Your task to perform on an android device: change the upload size in google photos Image 0: 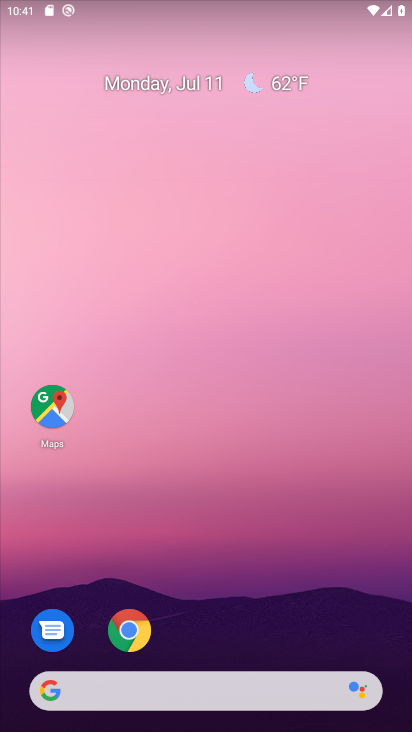
Step 0: drag from (292, 568) to (243, 6)
Your task to perform on an android device: change the upload size in google photos Image 1: 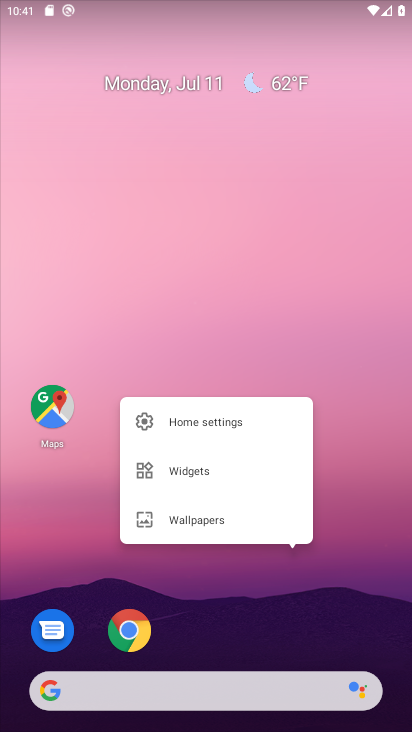
Step 1: click (383, 472)
Your task to perform on an android device: change the upload size in google photos Image 2: 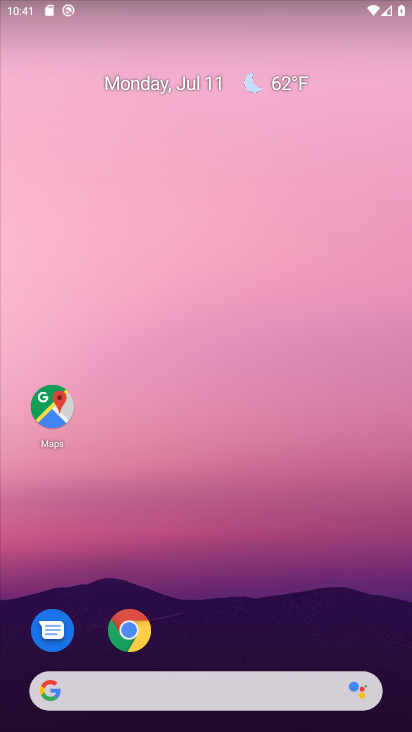
Step 2: drag from (277, 633) to (230, 19)
Your task to perform on an android device: change the upload size in google photos Image 3: 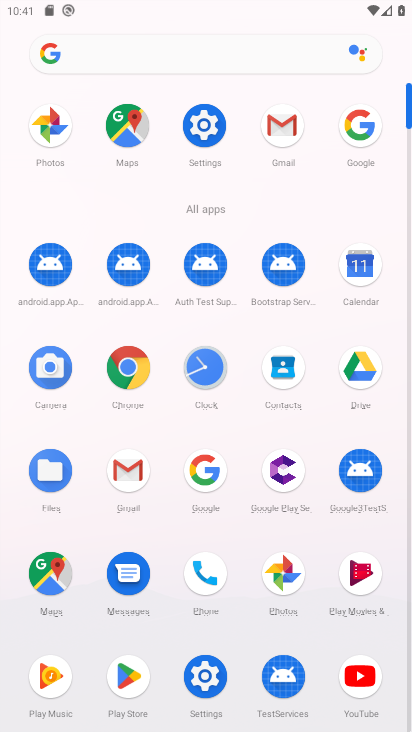
Step 3: click (46, 131)
Your task to perform on an android device: change the upload size in google photos Image 4: 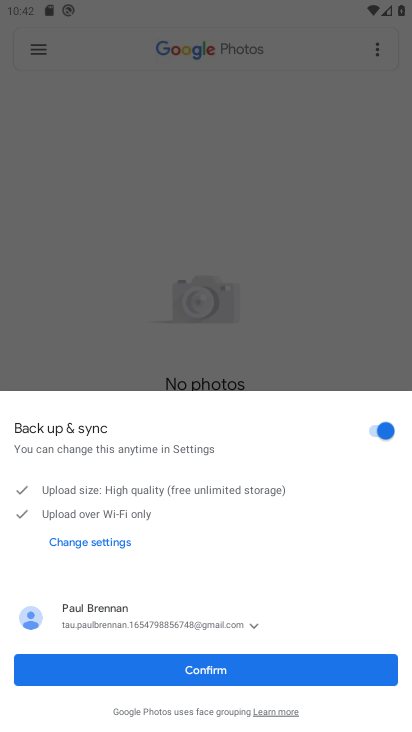
Step 4: click (182, 671)
Your task to perform on an android device: change the upload size in google photos Image 5: 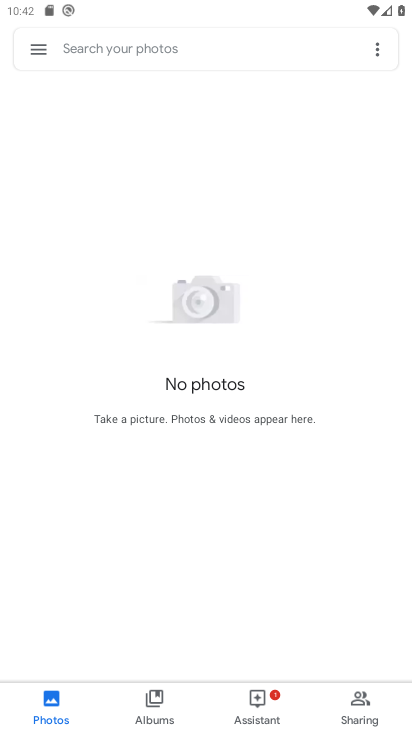
Step 5: click (36, 53)
Your task to perform on an android device: change the upload size in google photos Image 6: 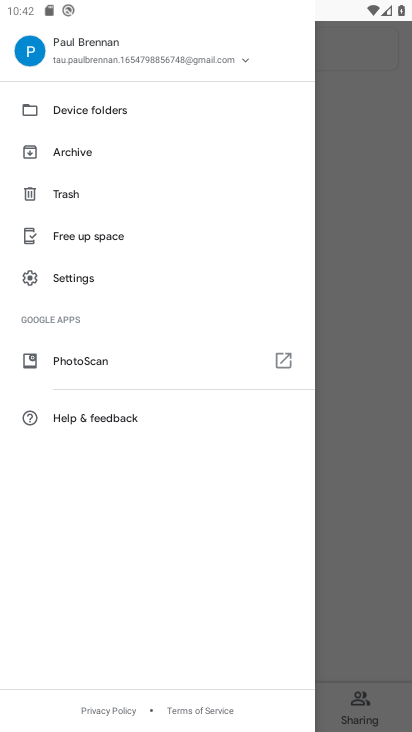
Step 6: click (77, 274)
Your task to perform on an android device: change the upload size in google photos Image 7: 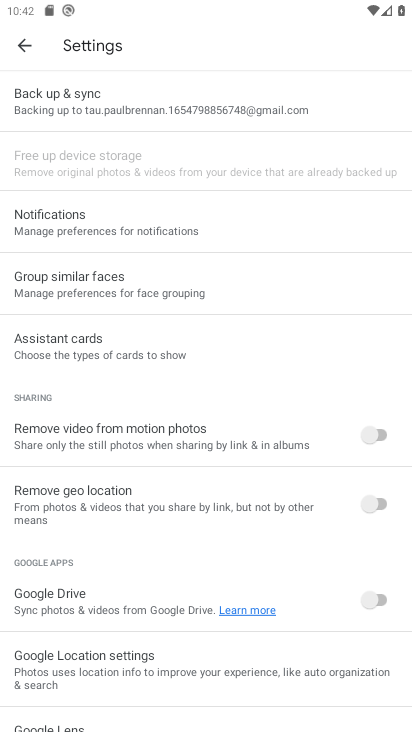
Step 7: click (100, 105)
Your task to perform on an android device: change the upload size in google photos Image 8: 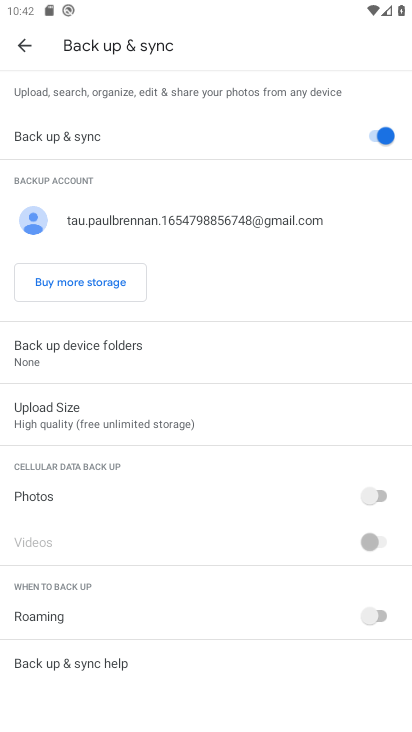
Step 8: click (107, 408)
Your task to perform on an android device: change the upload size in google photos Image 9: 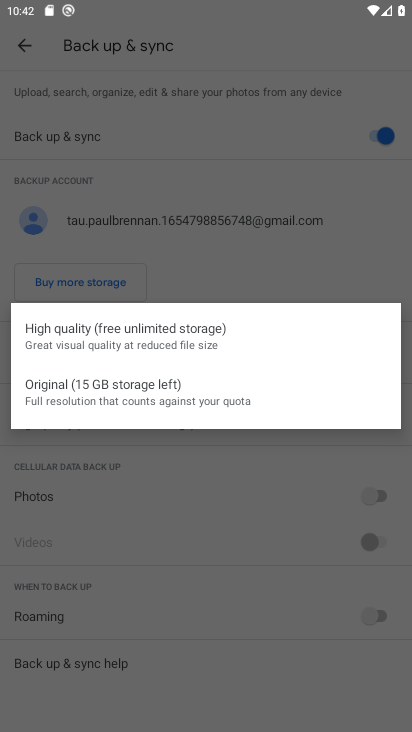
Step 9: click (111, 396)
Your task to perform on an android device: change the upload size in google photos Image 10: 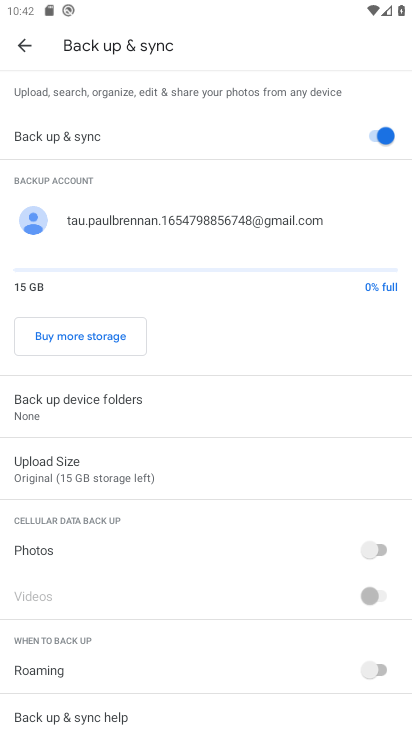
Step 10: task complete